Your task to perform on an android device: turn on javascript in the chrome app Image 0: 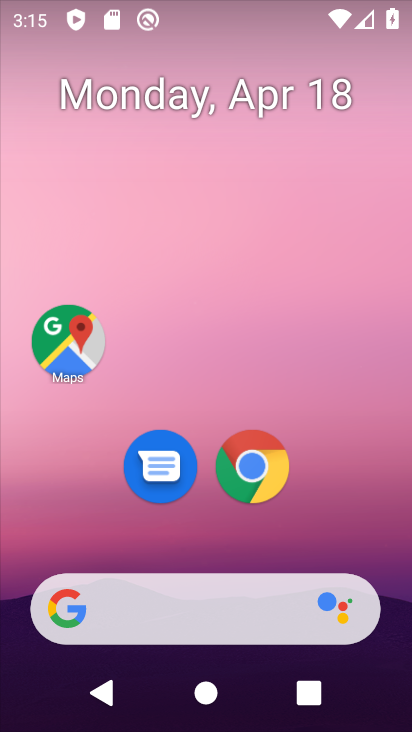
Step 0: click (270, 488)
Your task to perform on an android device: turn on javascript in the chrome app Image 1: 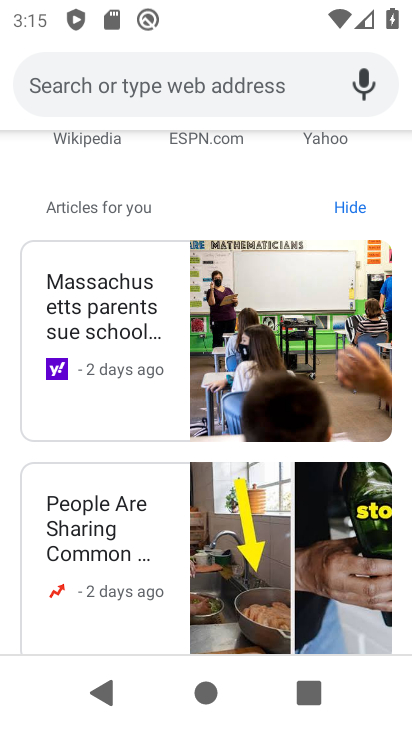
Step 1: drag from (329, 267) to (400, 728)
Your task to perform on an android device: turn on javascript in the chrome app Image 2: 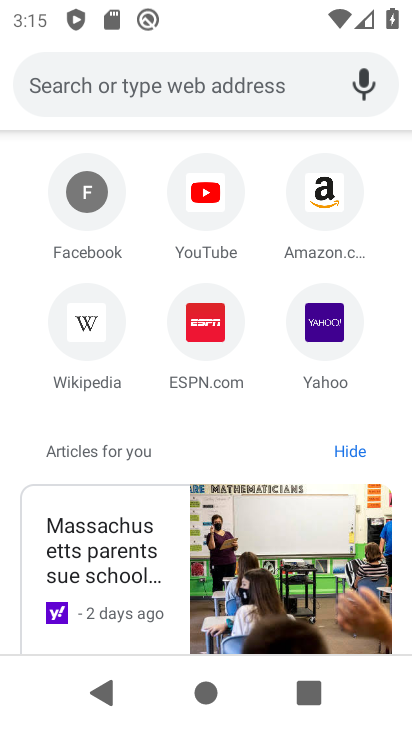
Step 2: drag from (398, 214) to (360, 656)
Your task to perform on an android device: turn on javascript in the chrome app Image 3: 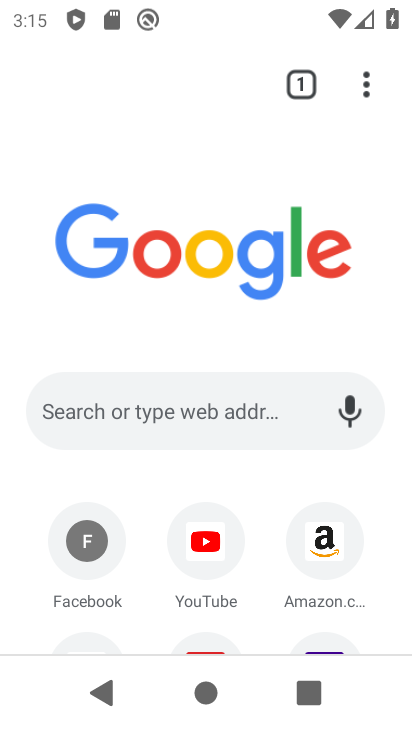
Step 3: click (366, 99)
Your task to perform on an android device: turn on javascript in the chrome app Image 4: 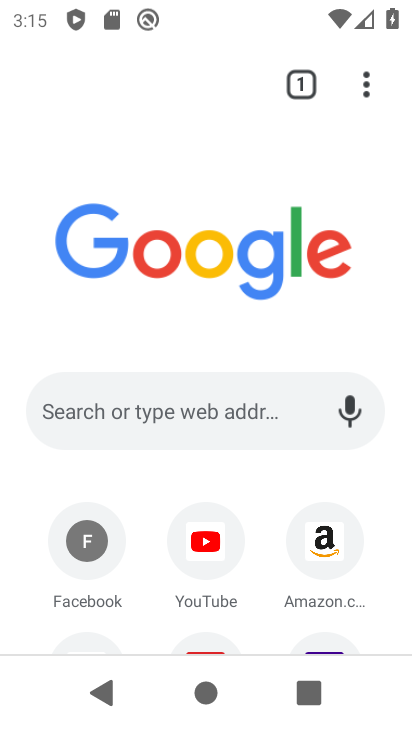
Step 4: click (366, 99)
Your task to perform on an android device: turn on javascript in the chrome app Image 5: 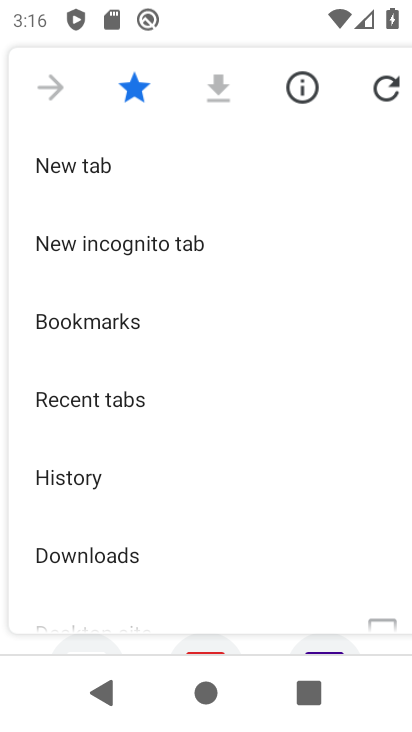
Step 5: drag from (180, 540) to (236, 321)
Your task to perform on an android device: turn on javascript in the chrome app Image 6: 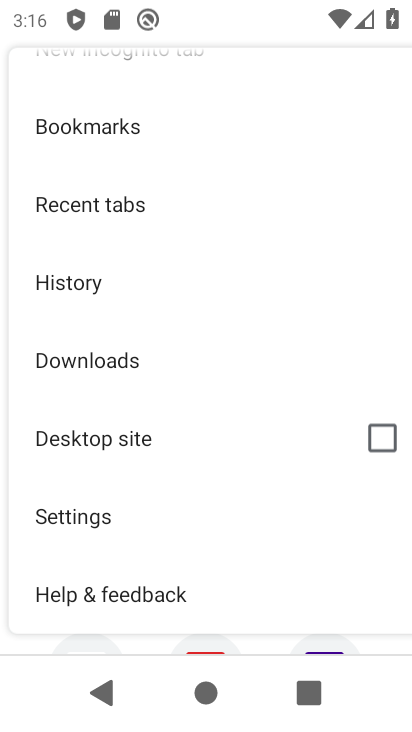
Step 6: click (189, 530)
Your task to perform on an android device: turn on javascript in the chrome app Image 7: 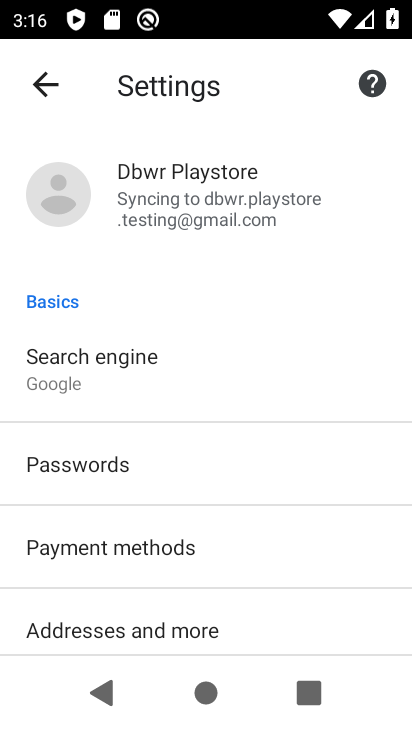
Step 7: drag from (210, 570) to (273, 190)
Your task to perform on an android device: turn on javascript in the chrome app Image 8: 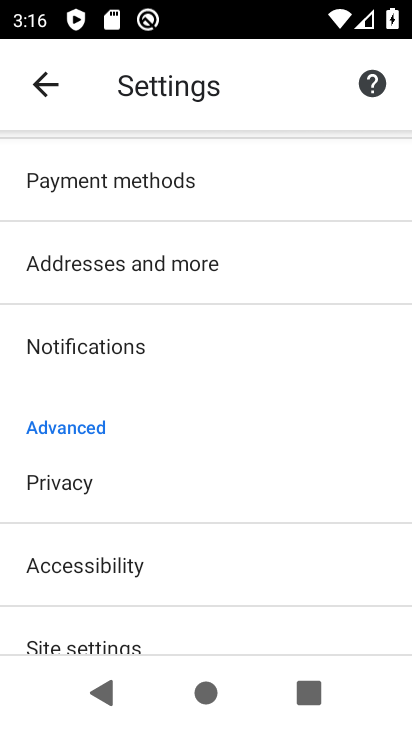
Step 8: click (164, 627)
Your task to perform on an android device: turn on javascript in the chrome app Image 9: 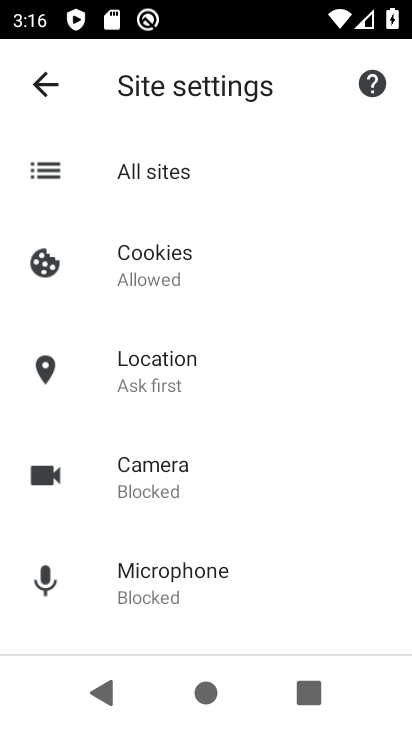
Step 9: drag from (164, 627) to (227, 342)
Your task to perform on an android device: turn on javascript in the chrome app Image 10: 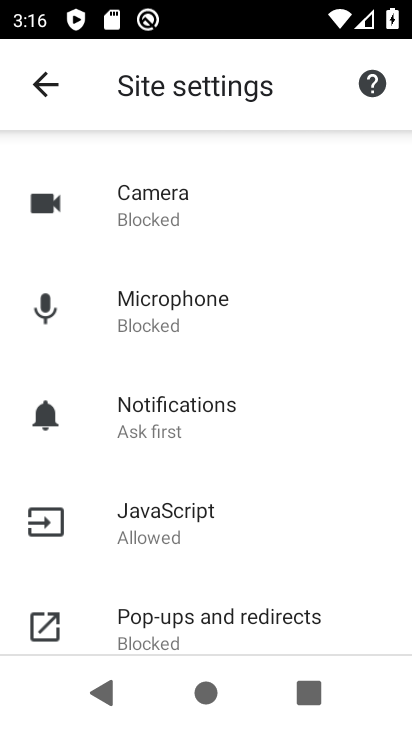
Step 10: click (214, 522)
Your task to perform on an android device: turn on javascript in the chrome app Image 11: 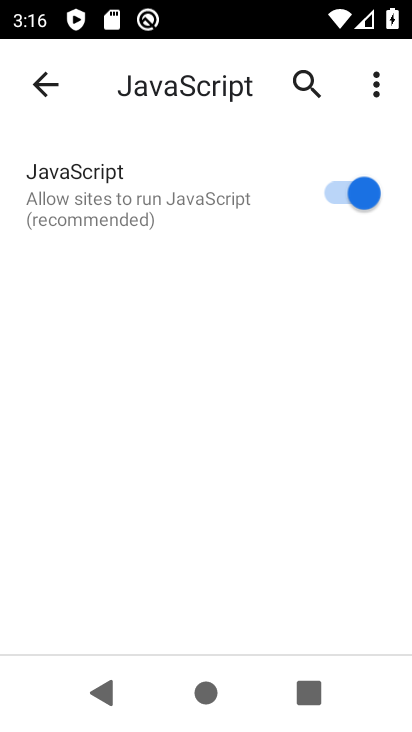
Step 11: task complete